Your task to perform on an android device: Open settings on Google Maps Image 0: 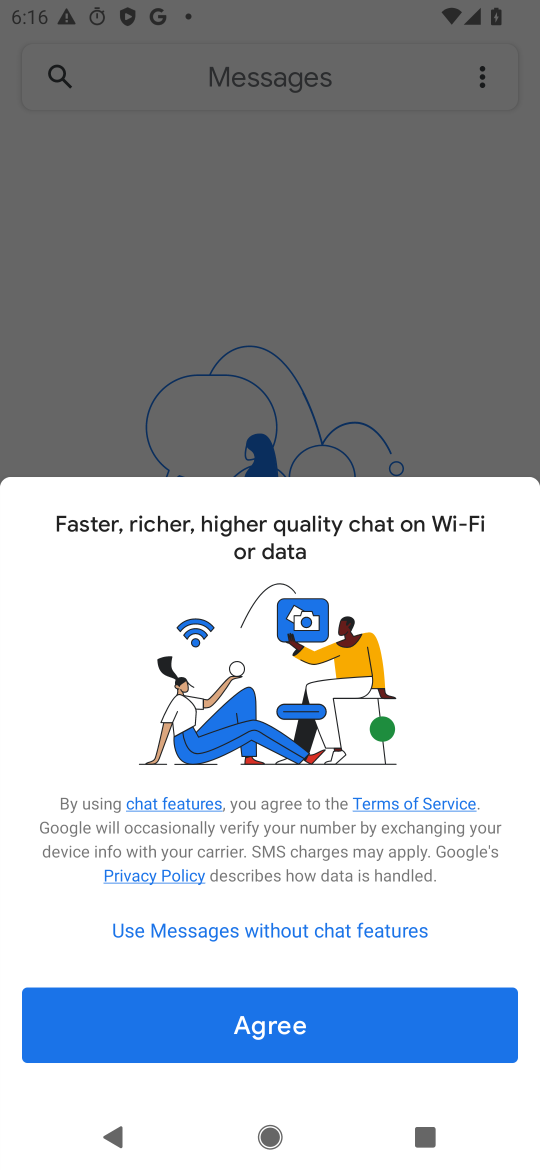
Step 0: press home button
Your task to perform on an android device: Open settings on Google Maps Image 1: 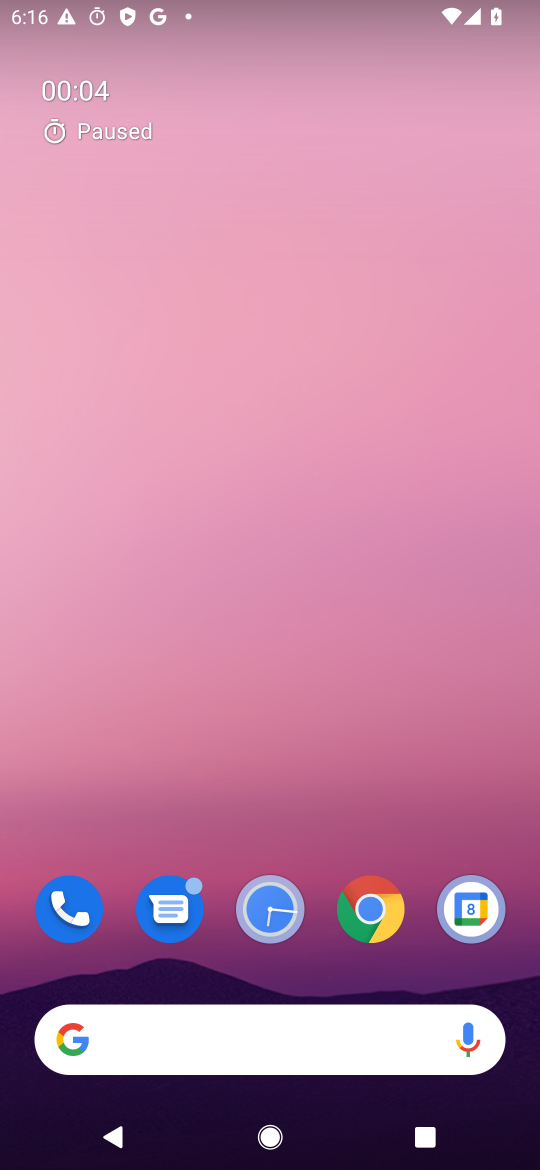
Step 1: drag from (342, 1037) to (474, 110)
Your task to perform on an android device: Open settings on Google Maps Image 2: 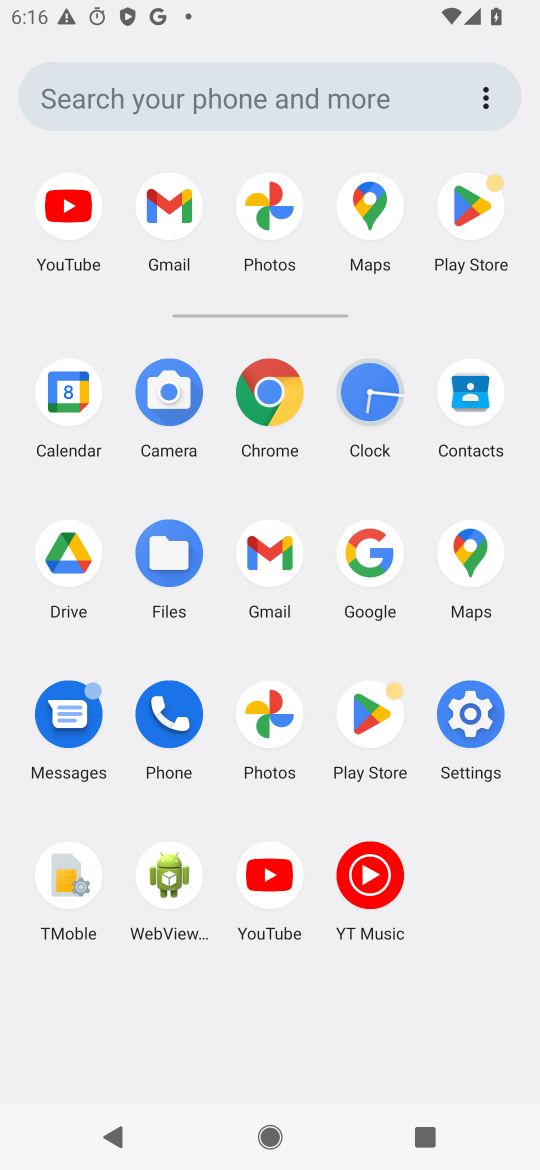
Step 2: click (474, 549)
Your task to perform on an android device: Open settings on Google Maps Image 3: 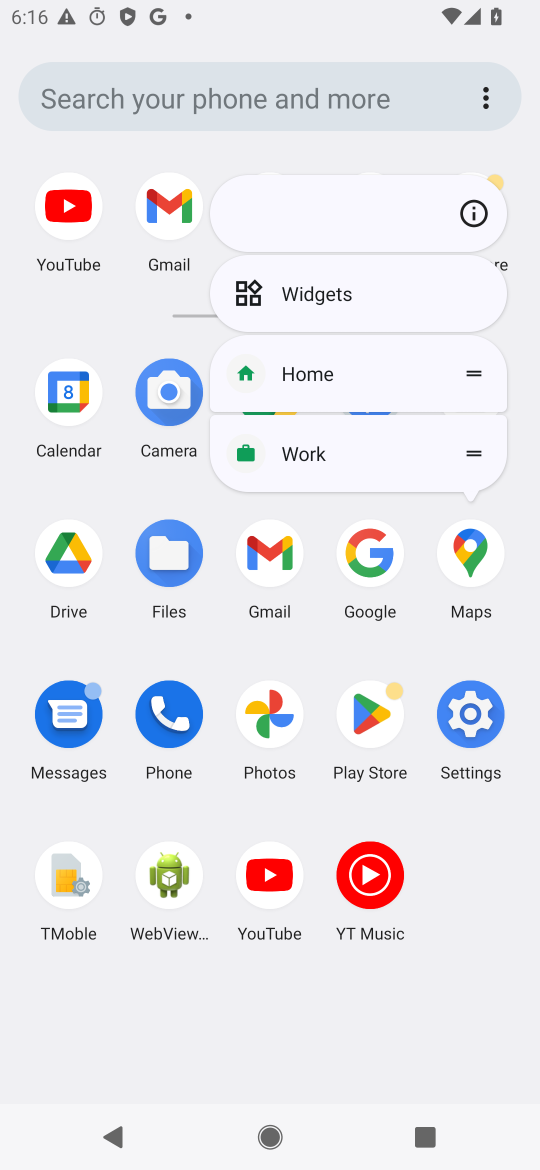
Step 3: click (474, 546)
Your task to perform on an android device: Open settings on Google Maps Image 4: 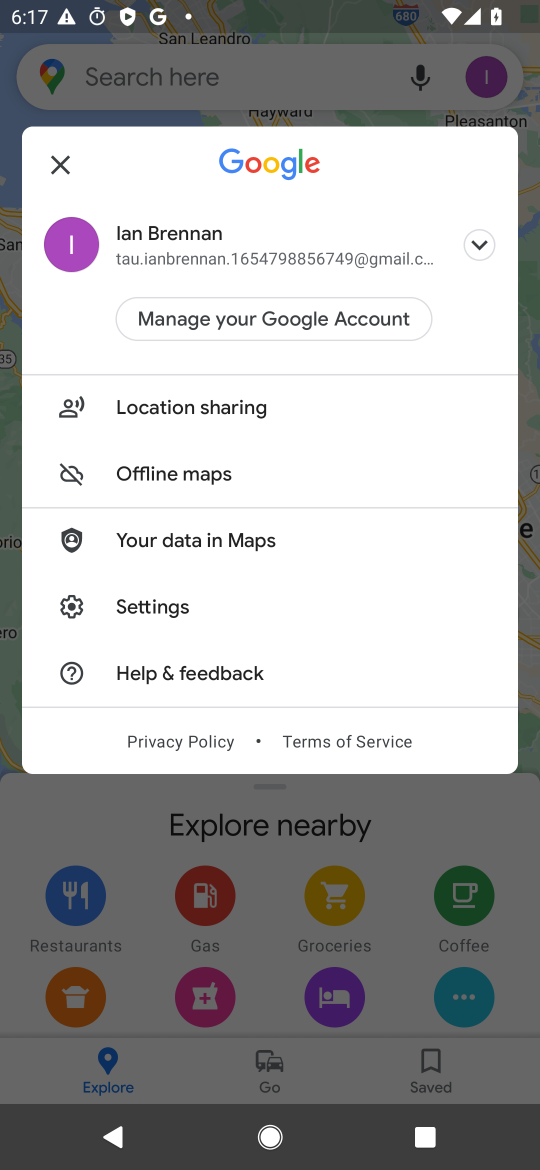
Step 4: click (151, 595)
Your task to perform on an android device: Open settings on Google Maps Image 5: 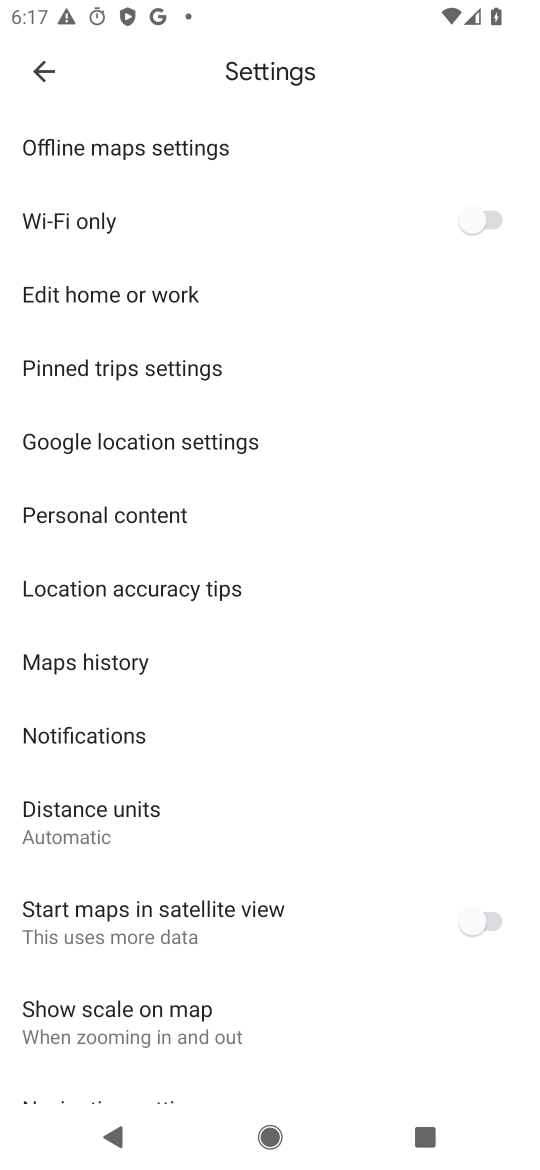
Step 5: task complete